Your task to perform on an android device: turn on sleep mode Image 0: 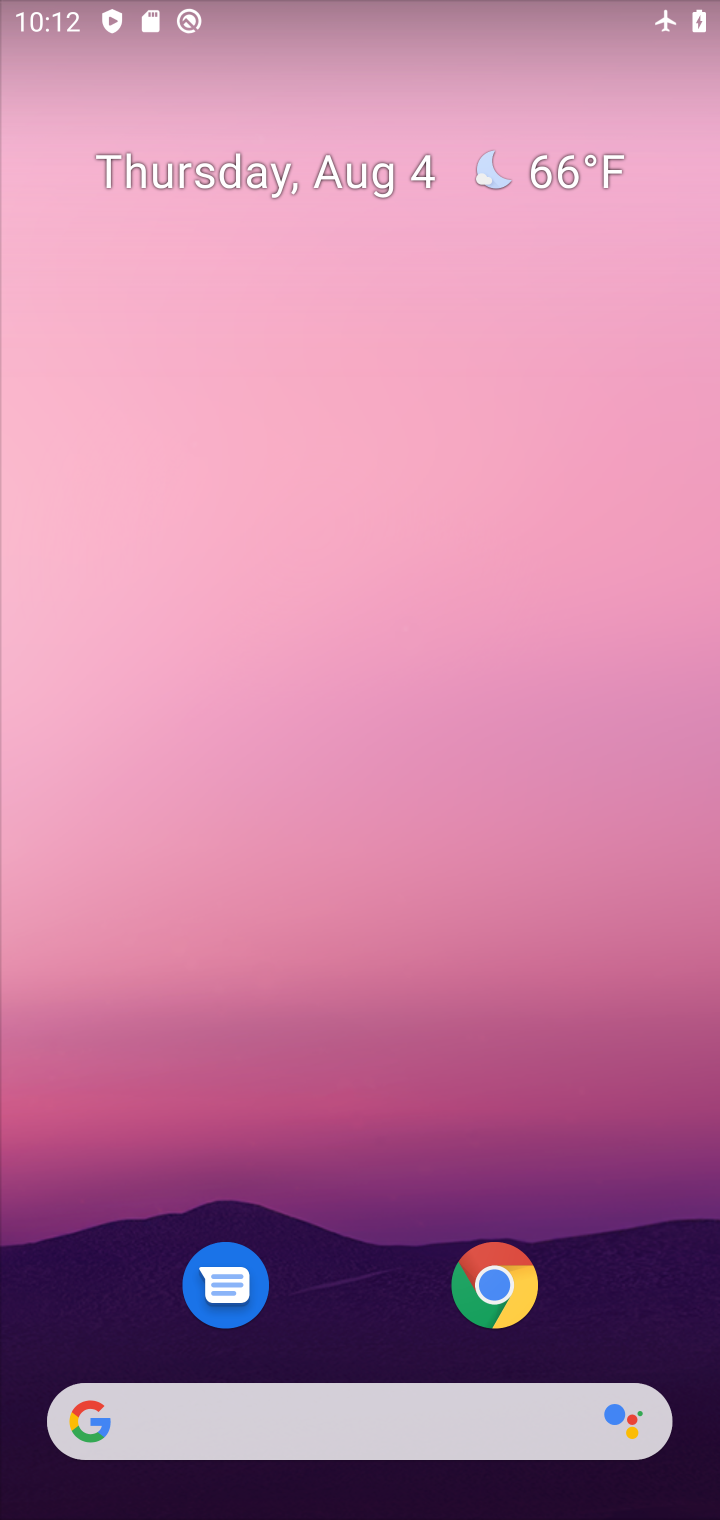
Step 0: drag from (341, 1146) to (403, 137)
Your task to perform on an android device: turn on sleep mode Image 1: 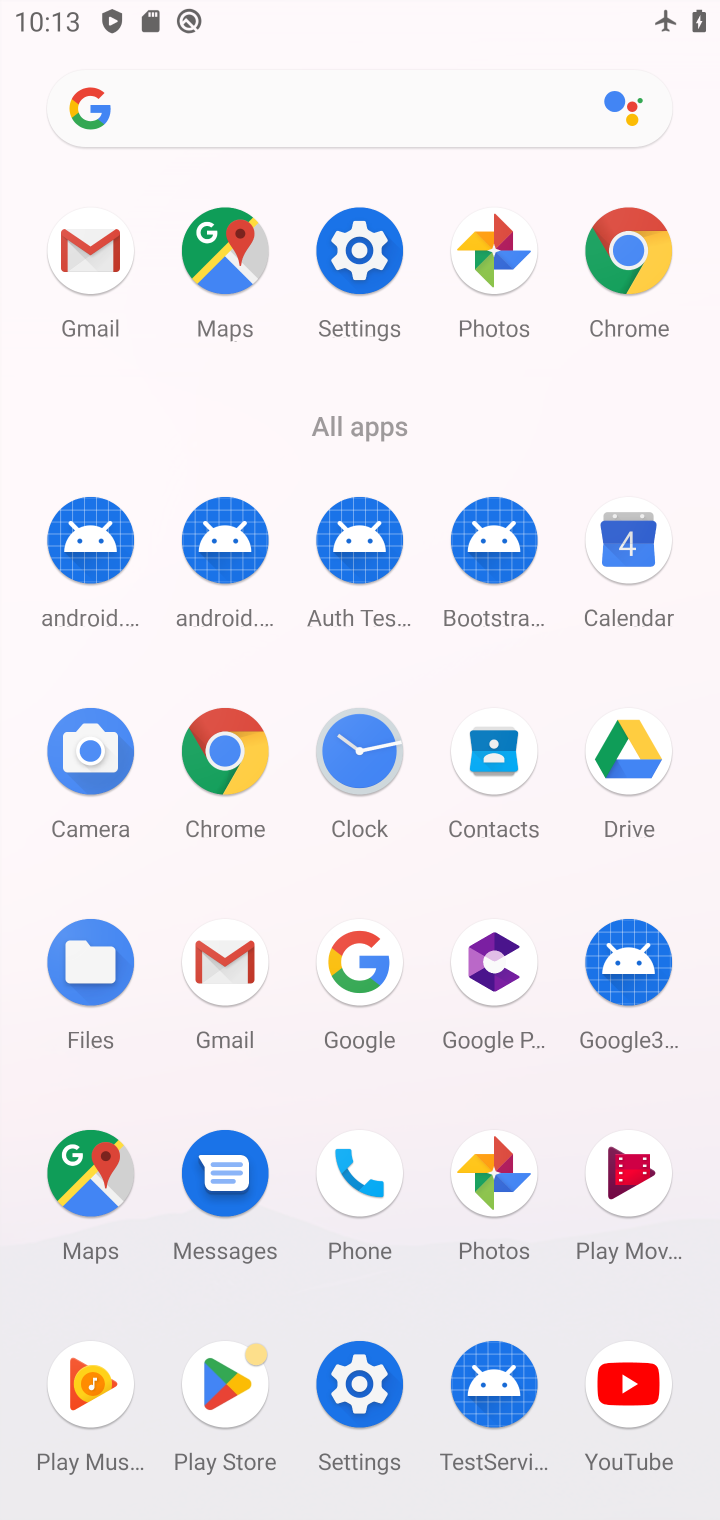
Step 1: click (372, 1357)
Your task to perform on an android device: turn on sleep mode Image 2: 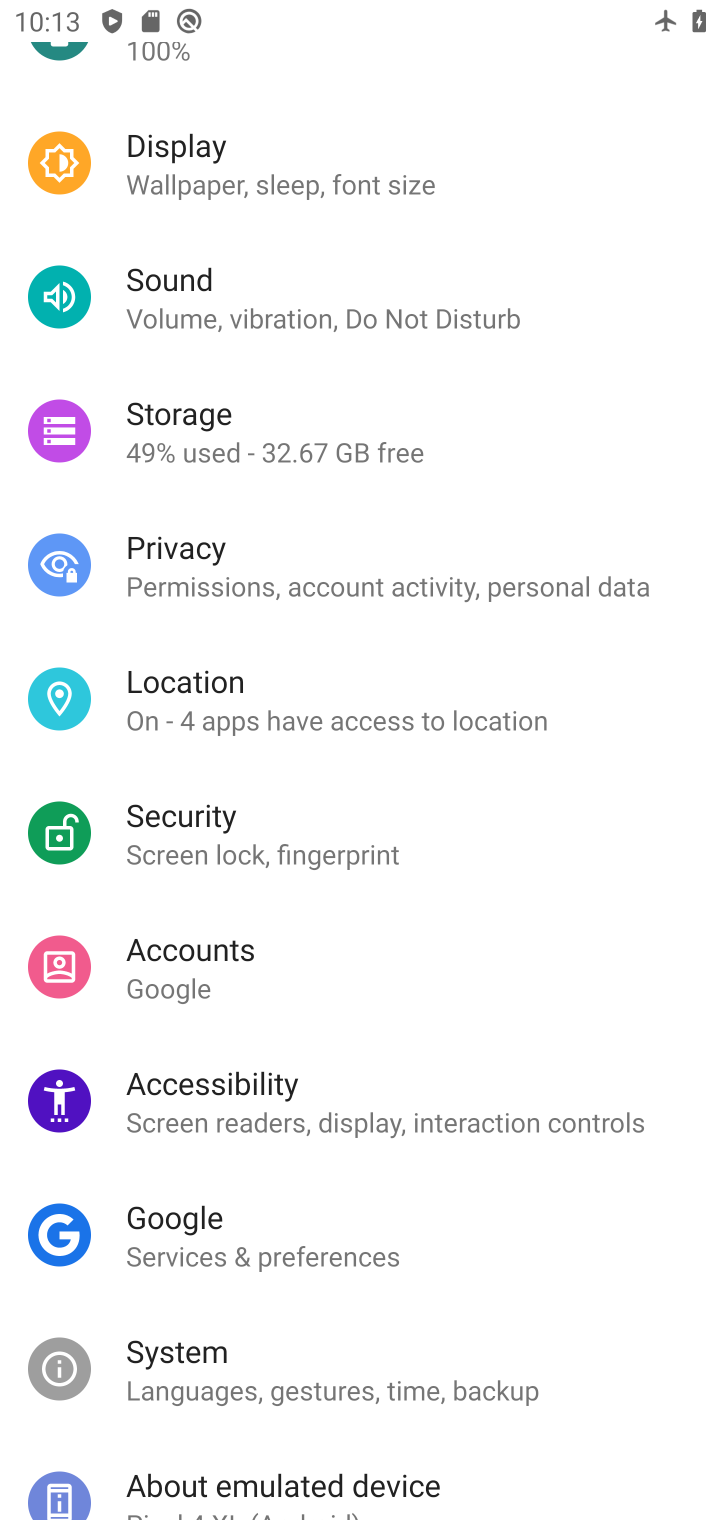
Step 2: drag from (335, 569) to (343, 1115)
Your task to perform on an android device: turn on sleep mode Image 3: 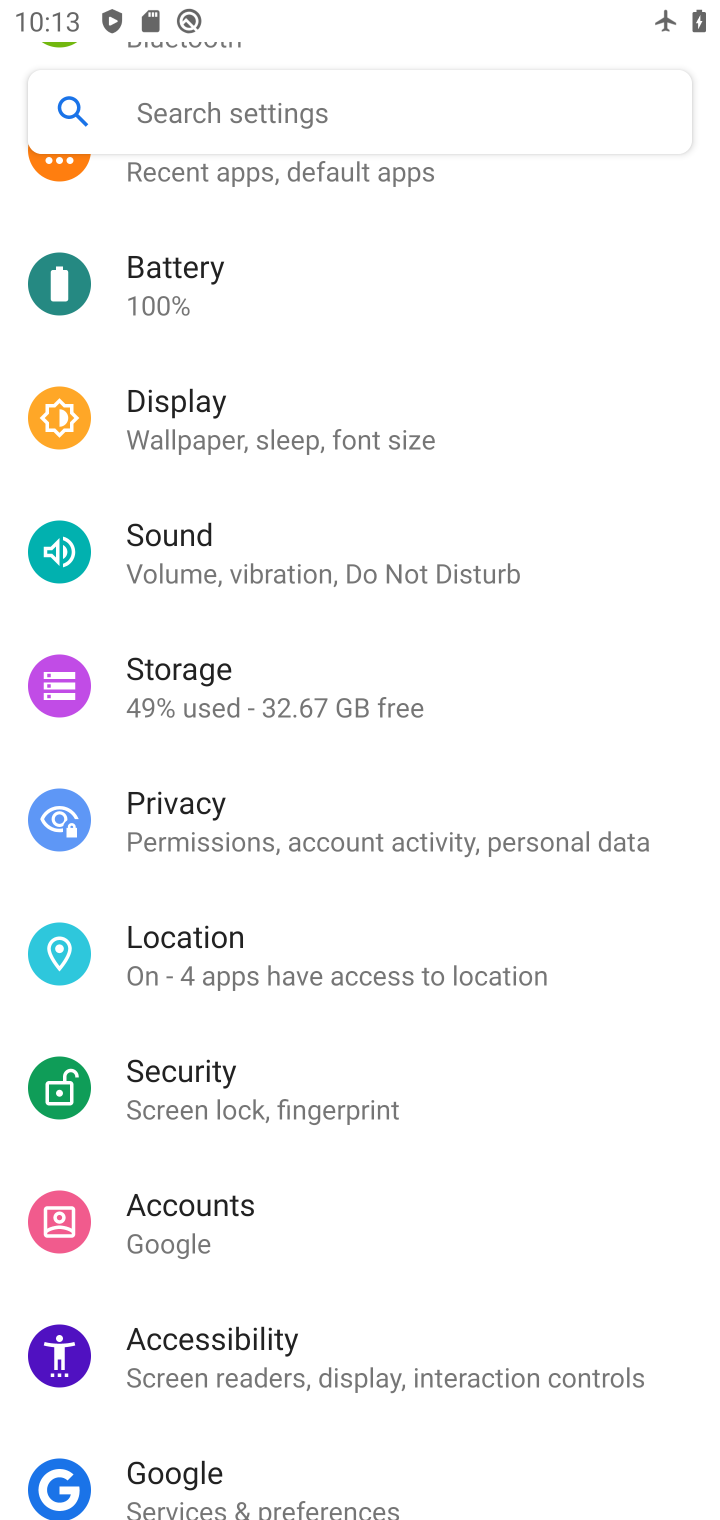
Step 3: click (207, 420)
Your task to perform on an android device: turn on sleep mode Image 4: 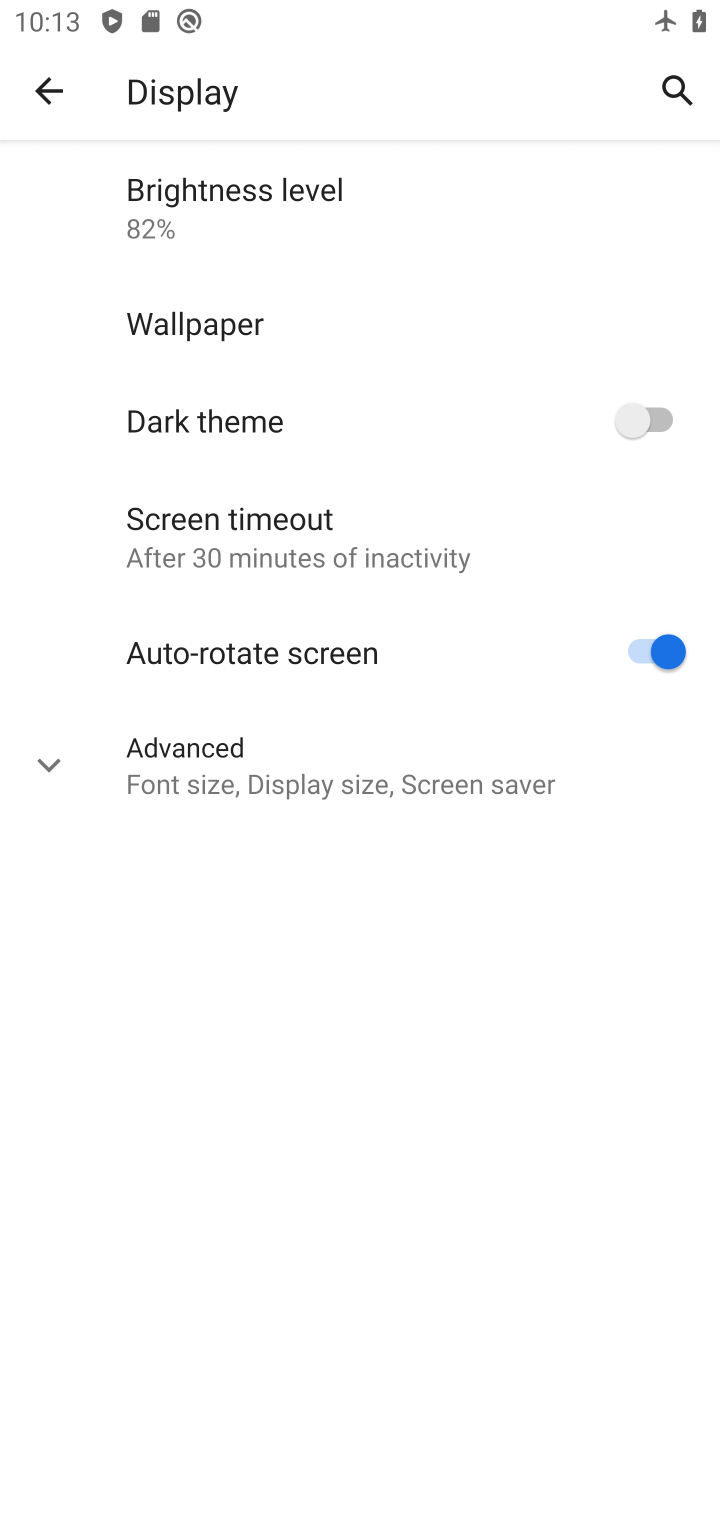
Step 4: task complete